Your task to perform on an android device: Open settings Image 0: 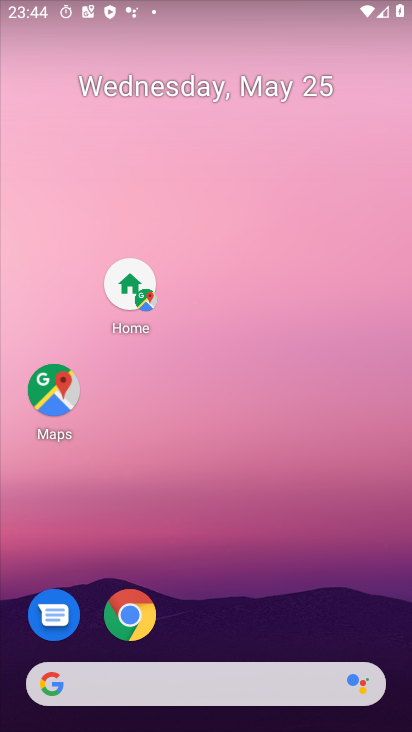
Step 0: drag from (336, 643) to (289, 223)
Your task to perform on an android device: Open settings Image 1: 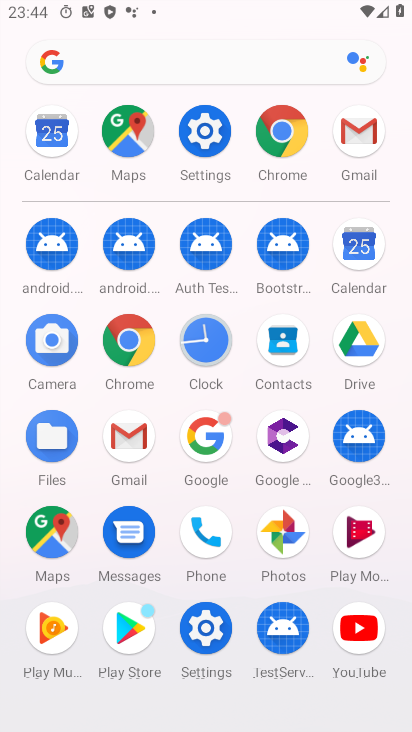
Step 1: click (199, 130)
Your task to perform on an android device: Open settings Image 2: 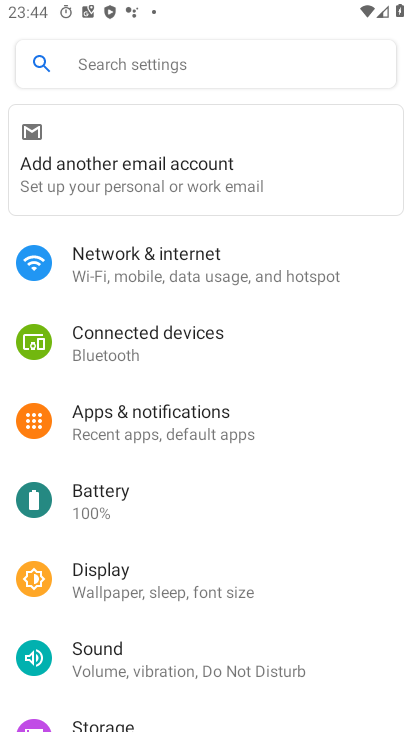
Step 2: task complete